Your task to perform on an android device: Open Amazon Image 0: 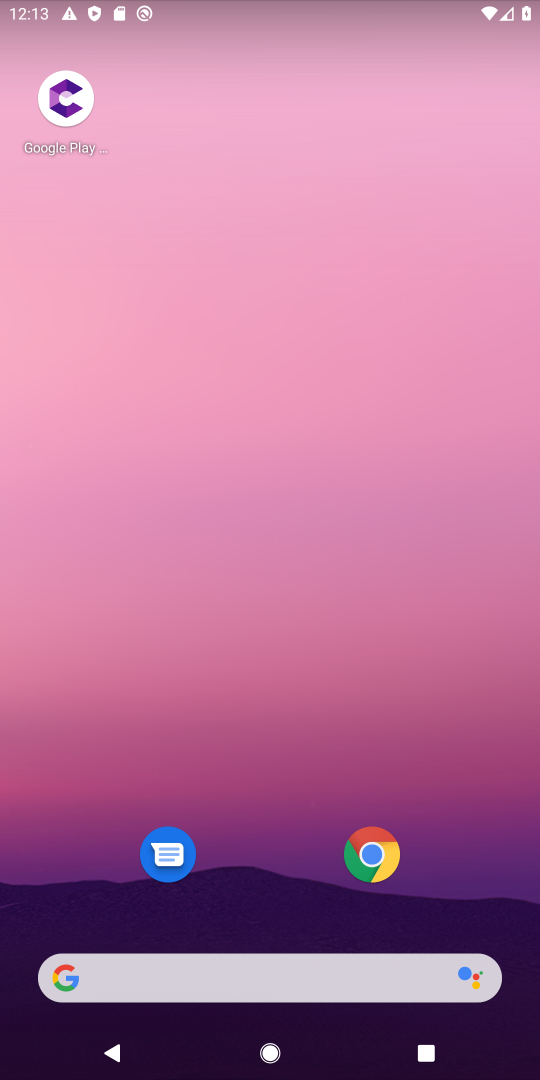
Step 0: click (54, 976)
Your task to perform on an android device: Open Amazon Image 1: 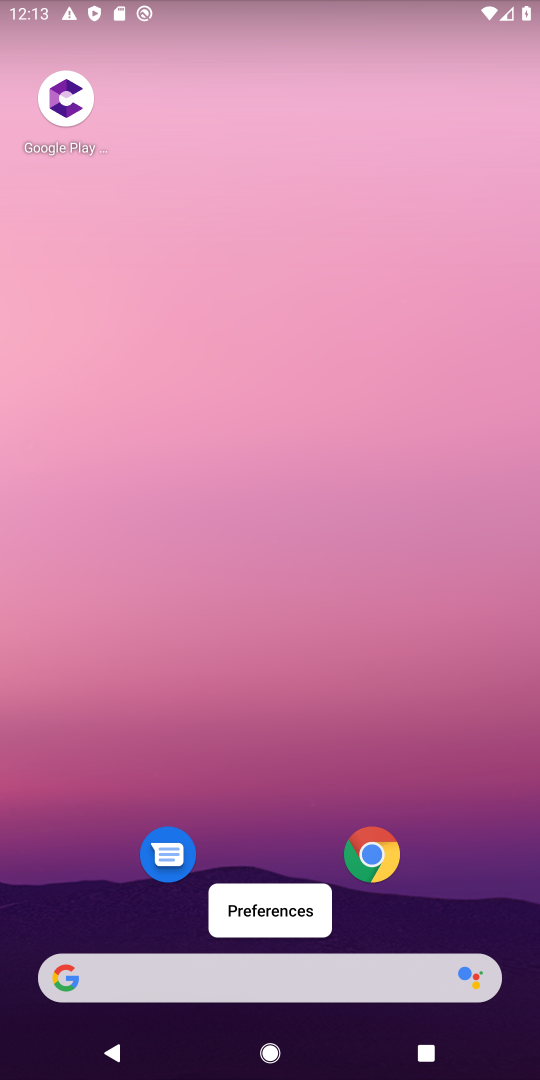
Step 1: click (54, 976)
Your task to perform on an android device: Open Amazon Image 2: 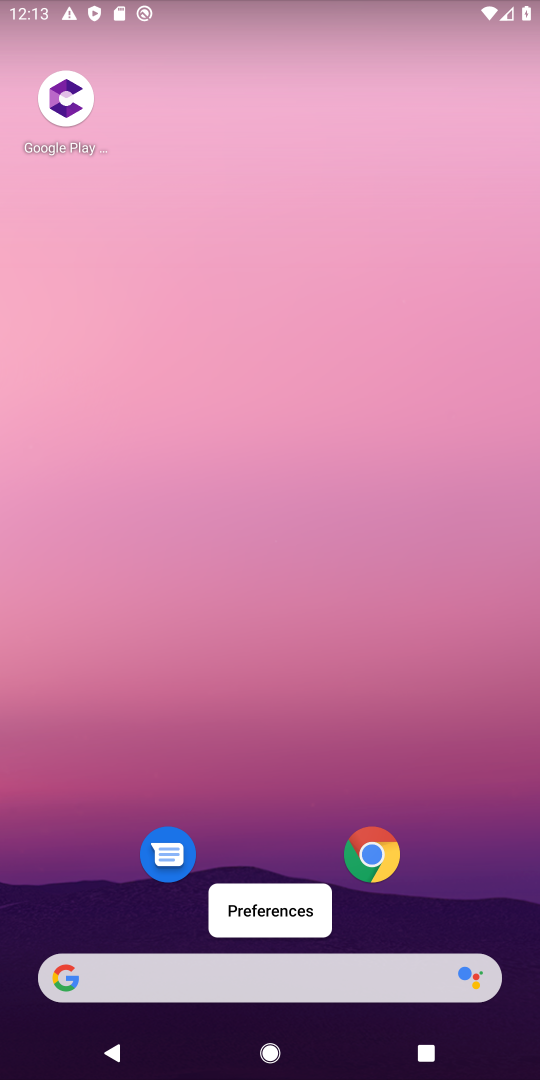
Step 2: click (53, 966)
Your task to perform on an android device: Open Amazon Image 3: 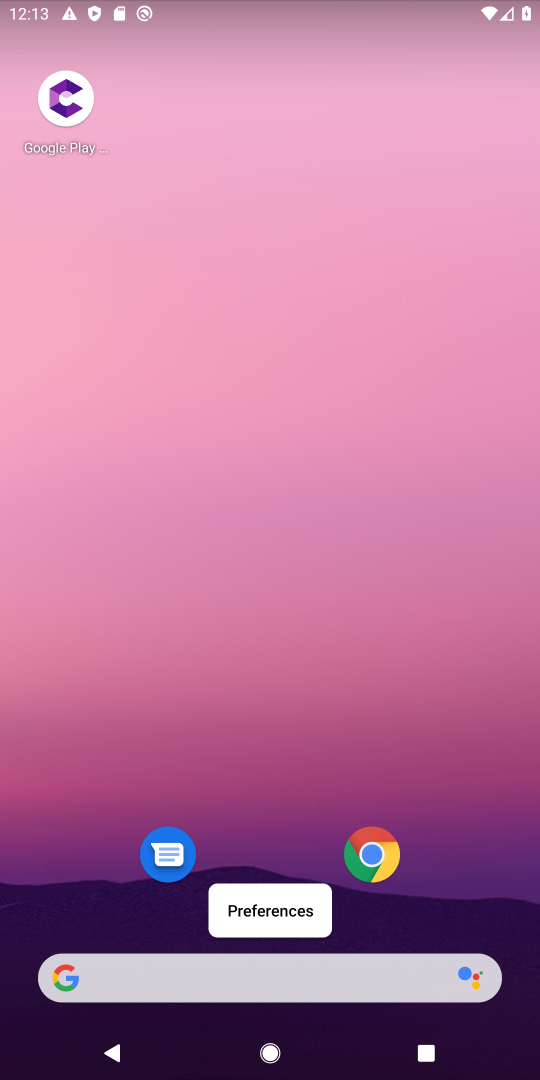
Step 3: click (64, 981)
Your task to perform on an android device: Open Amazon Image 4: 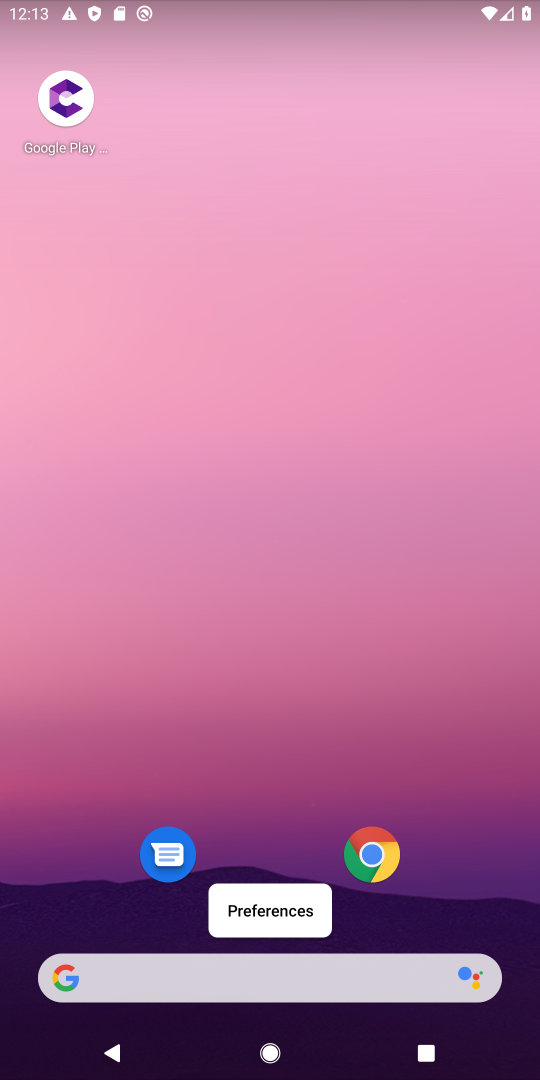
Step 4: click (64, 975)
Your task to perform on an android device: Open Amazon Image 5: 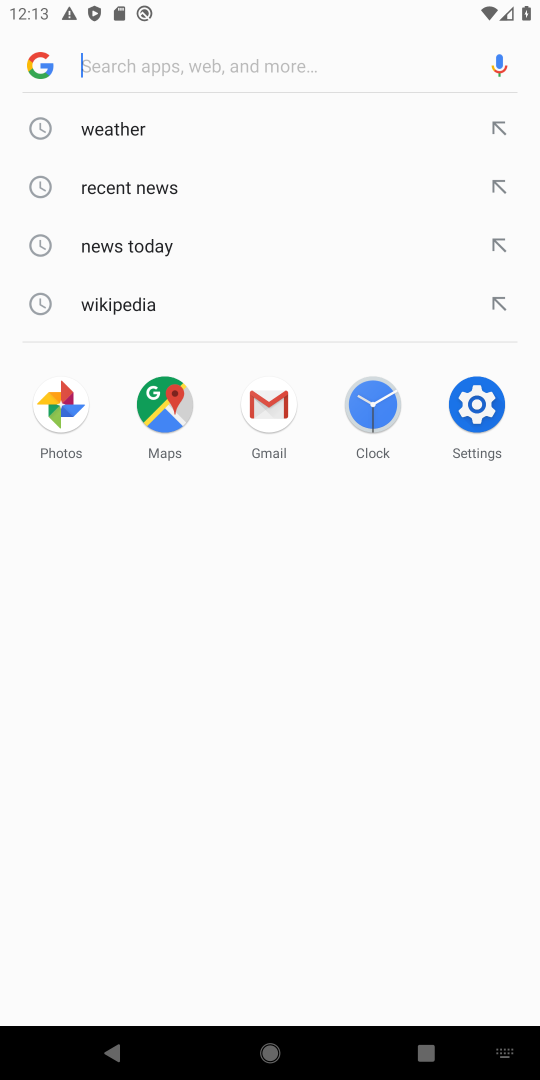
Step 5: type " Amazon"
Your task to perform on an android device: Open Amazon Image 6: 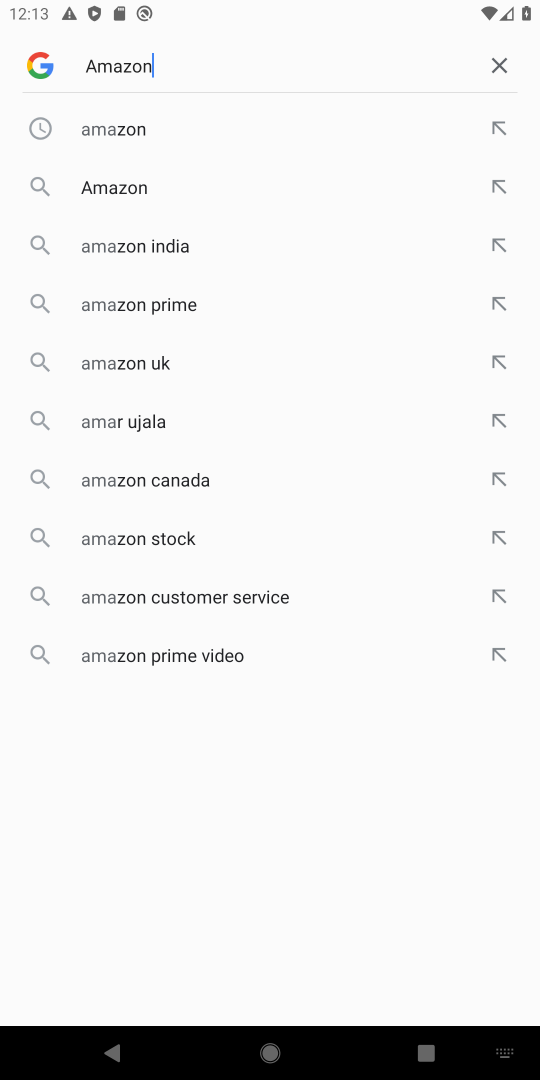
Step 6: press enter
Your task to perform on an android device: Open Amazon Image 7: 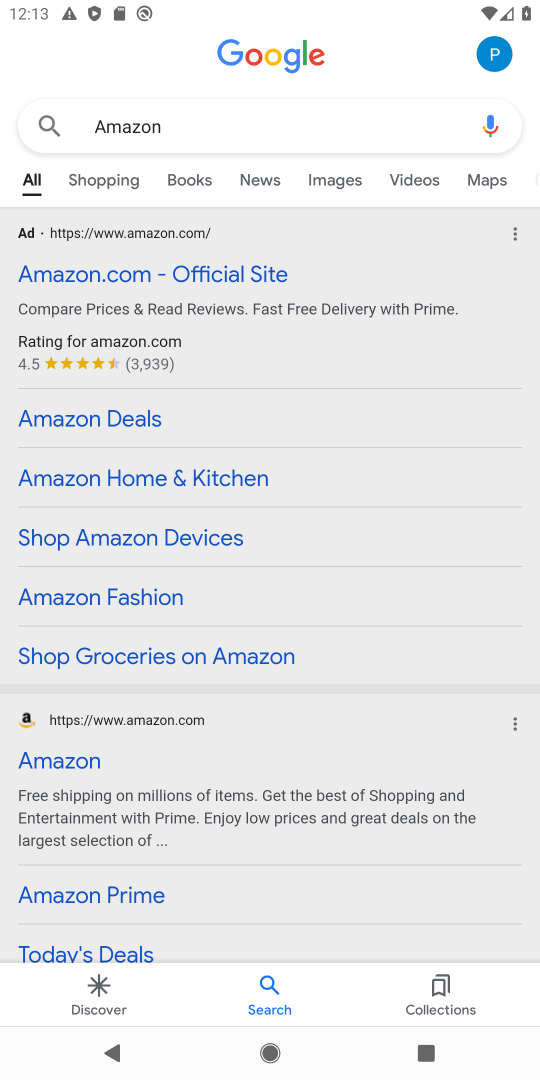
Step 7: click (143, 271)
Your task to perform on an android device: Open Amazon Image 8: 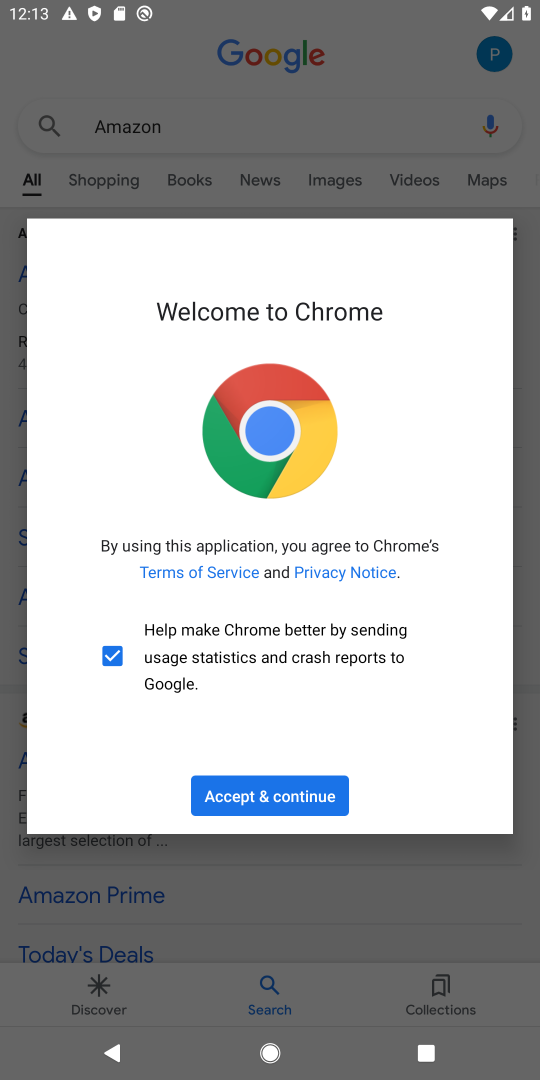
Step 8: click (276, 785)
Your task to perform on an android device: Open Amazon Image 9: 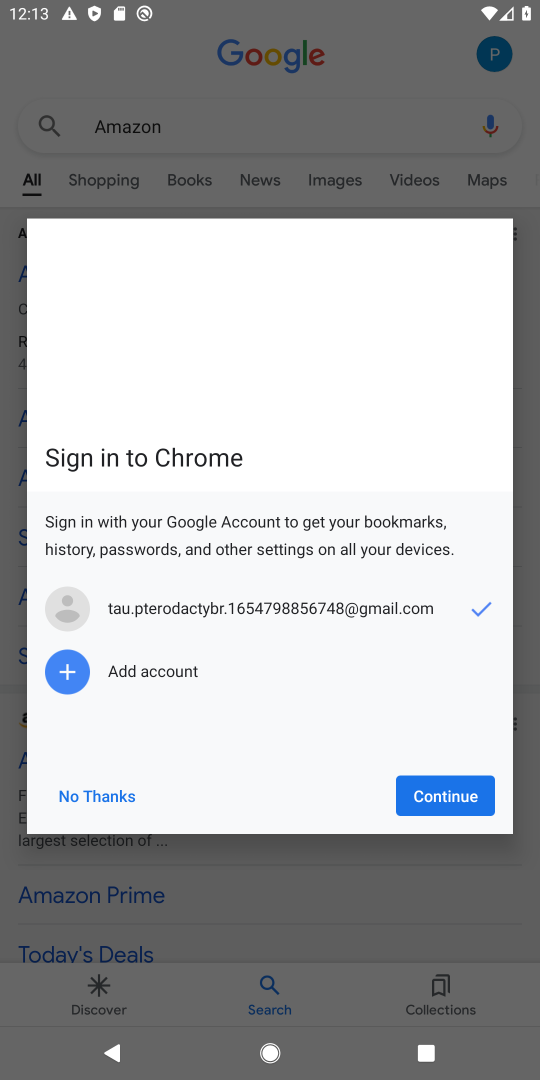
Step 9: click (428, 803)
Your task to perform on an android device: Open Amazon Image 10: 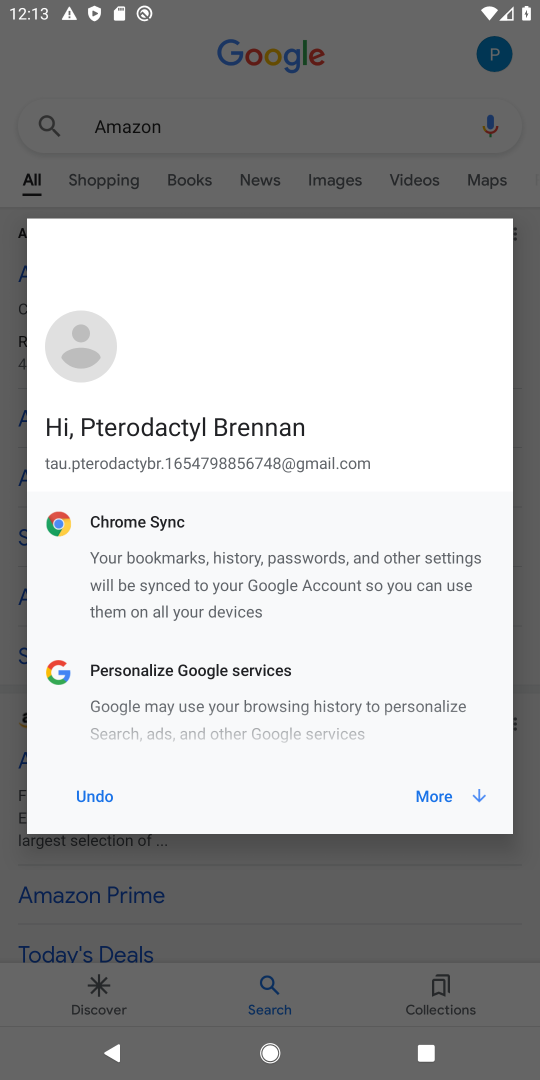
Step 10: click (449, 795)
Your task to perform on an android device: Open Amazon Image 11: 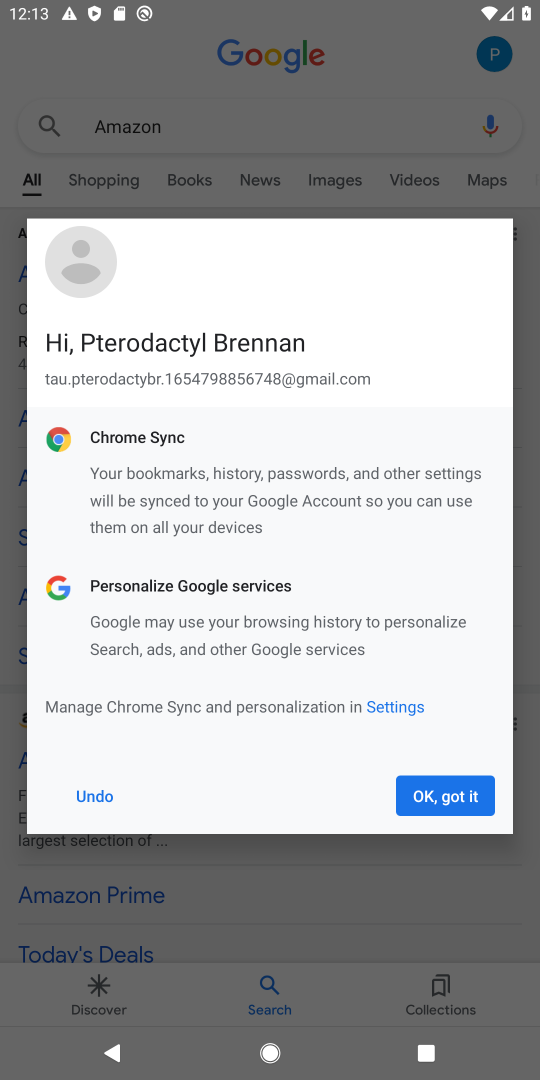
Step 11: click (449, 795)
Your task to perform on an android device: Open Amazon Image 12: 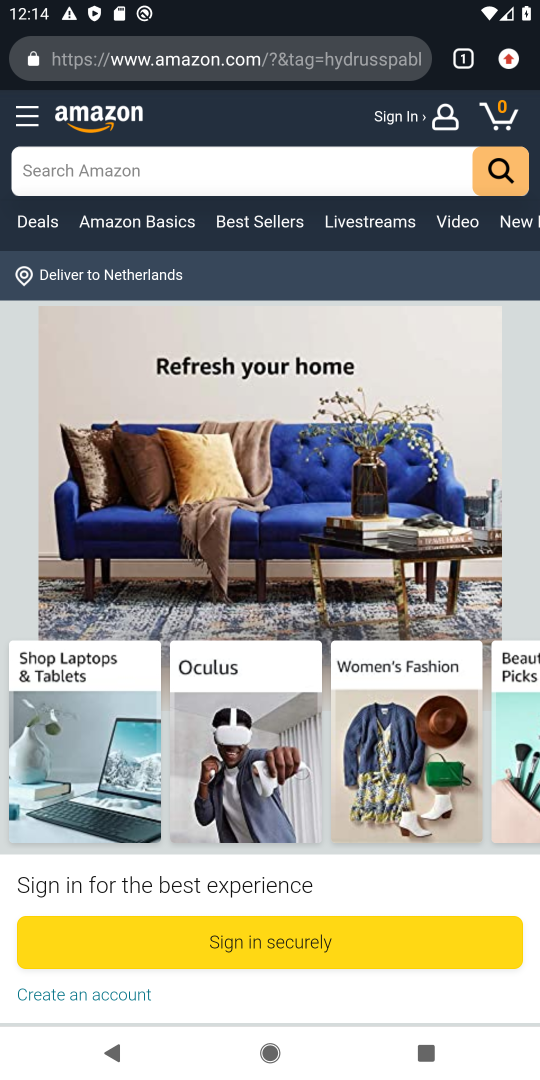
Step 12: task complete